Your task to perform on an android device: turn off data saver in the chrome app Image 0: 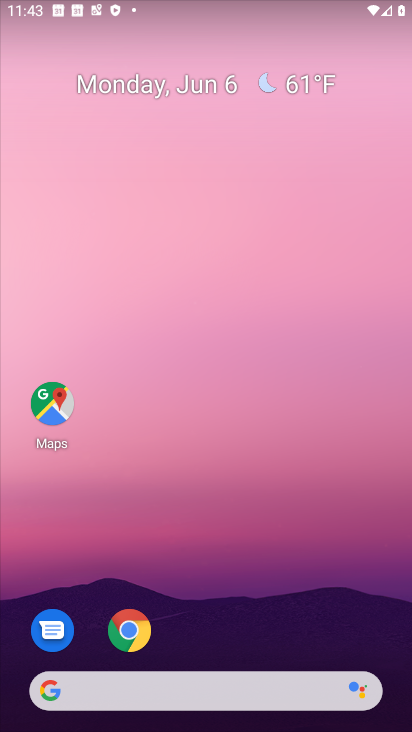
Step 0: drag from (308, 595) to (265, 164)
Your task to perform on an android device: turn off data saver in the chrome app Image 1: 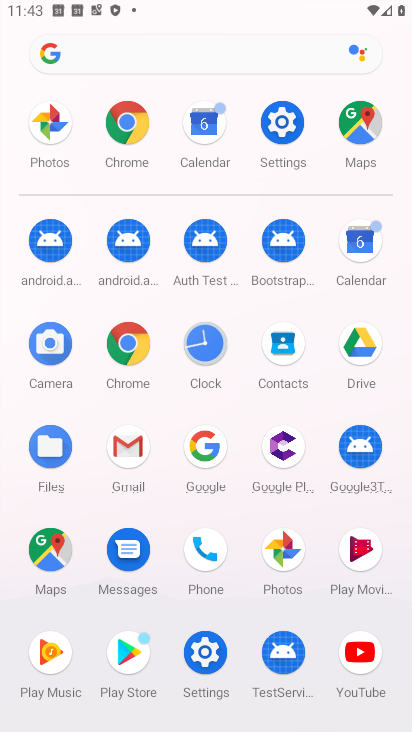
Step 1: click (39, 552)
Your task to perform on an android device: turn off data saver in the chrome app Image 2: 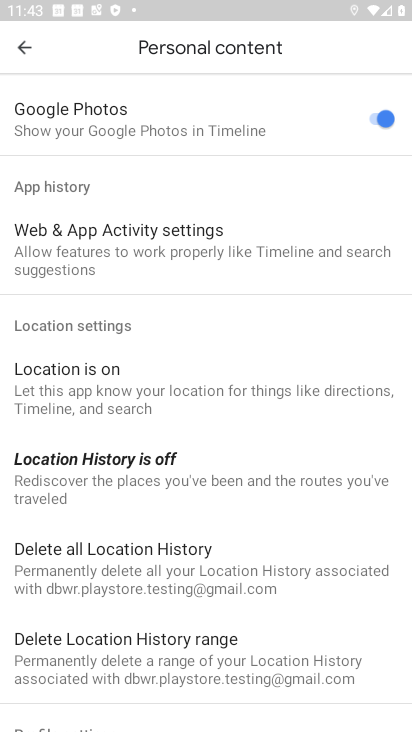
Step 2: press home button
Your task to perform on an android device: turn off data saver in the chrome app Image 3: 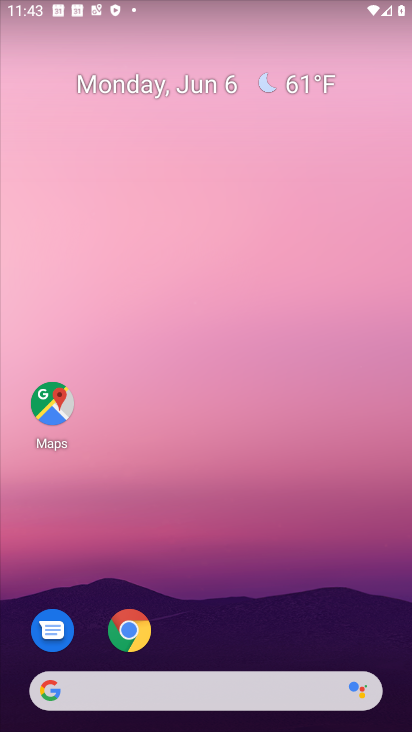
Step 3: drag from (380, 378) to (129, 134)
Your task to perform on an android device: turn off data saver in the chrome app Image 4: 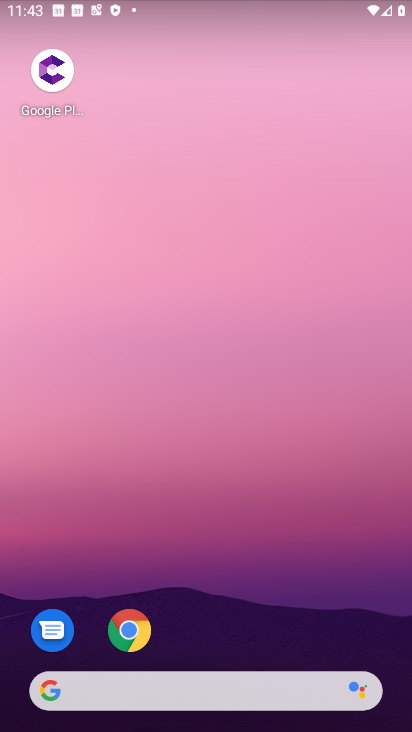
Step 4: drag from (292, 572) to (288, 173)
Your task to perform on an android device: turn off data saver in the chrome app Image 5: 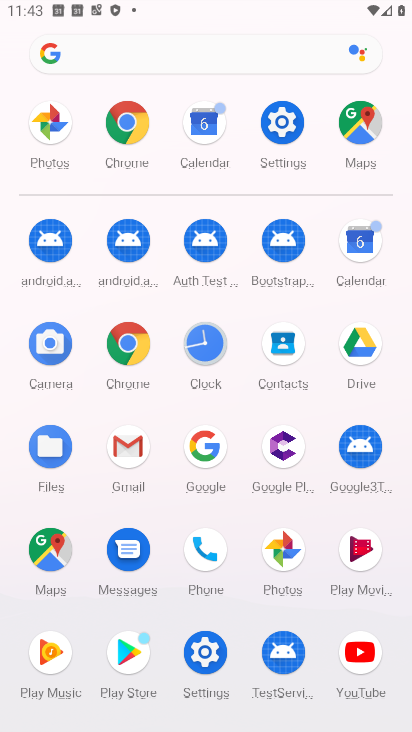
Step 5: click (120, 366)
Your task to perform on an android device: turn off data saver in the chrome app Image 6: 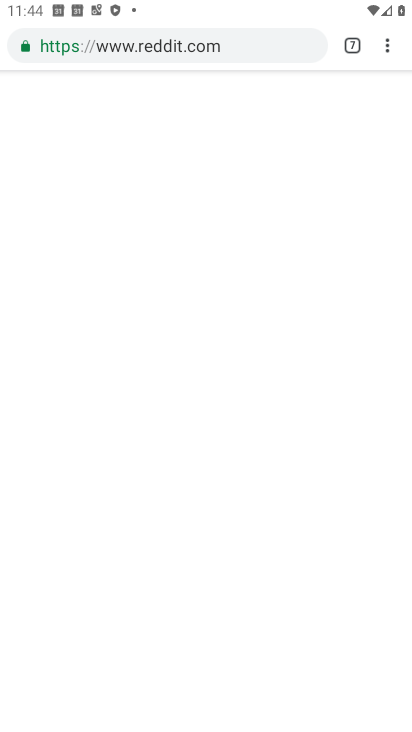
Step 6: drag from (391, 48) to (233, 541)
Your task to perform on an android device: turn off data saver in the chrome app Image 7: 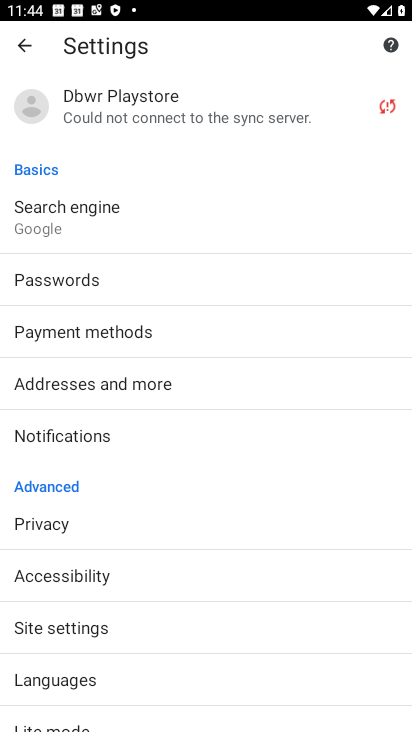
Step 7: drag from (258, 586) to (282, 236)
Your task to perform on an android device: turn off data saver in the chrome app Image 8: 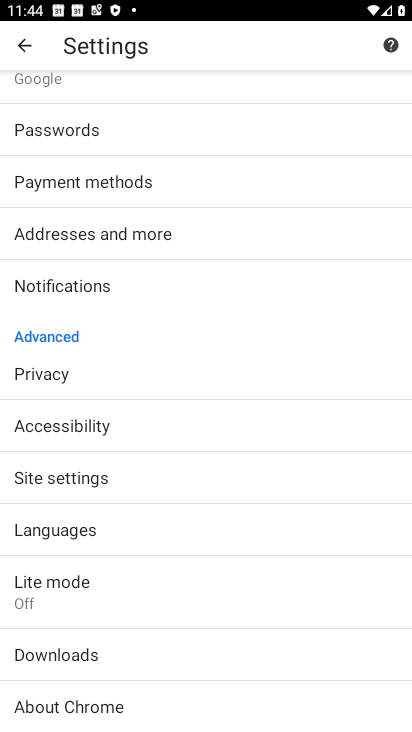
Step 8: click (84, 582)
Your task to perform on an android device: turn off data saver in the chrome app Image 9: 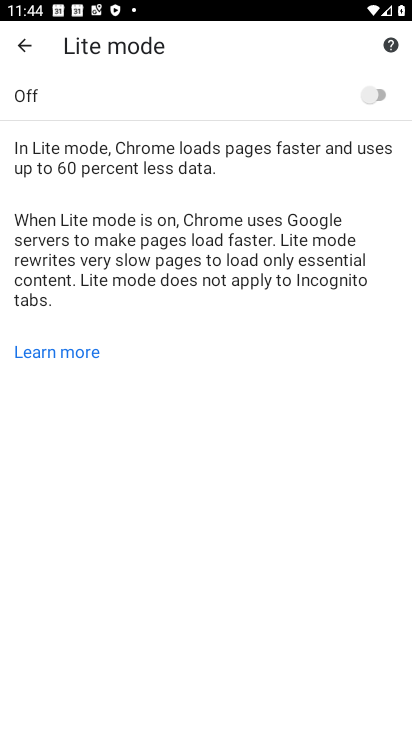
Step 9: task complete